Your task to perform on an android device: Open Chrome and go to the settings page Image 0: 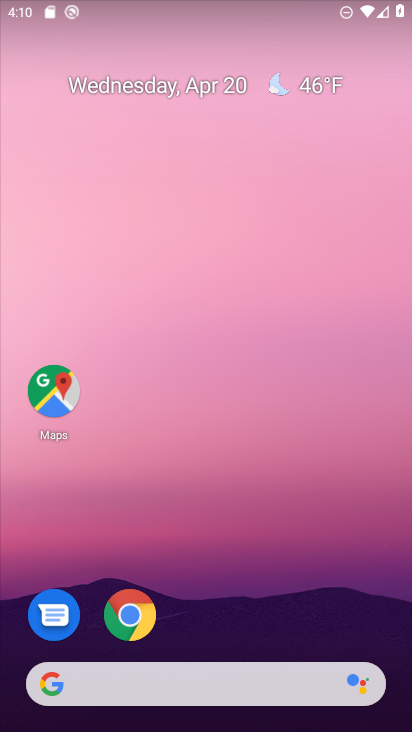
Step 0: drag from (151, 427) to (229, 65)
Your task to perform on an android device: Open Chrome and go to the settings page Image 1: 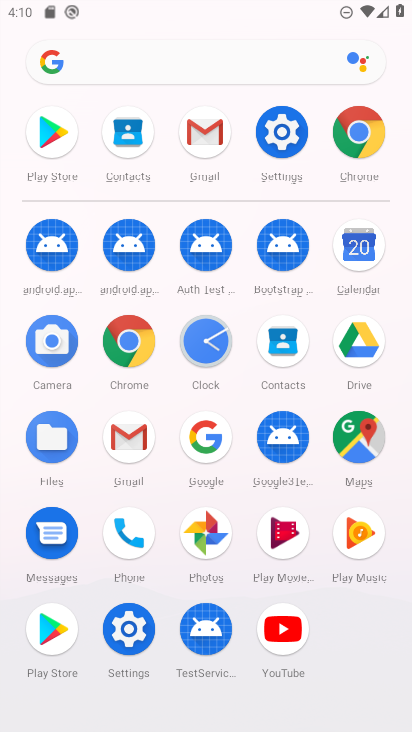
Step 1: click (278, 110)
Your task to perform on an android device: Open Chrome and go to the settings page Image 2: 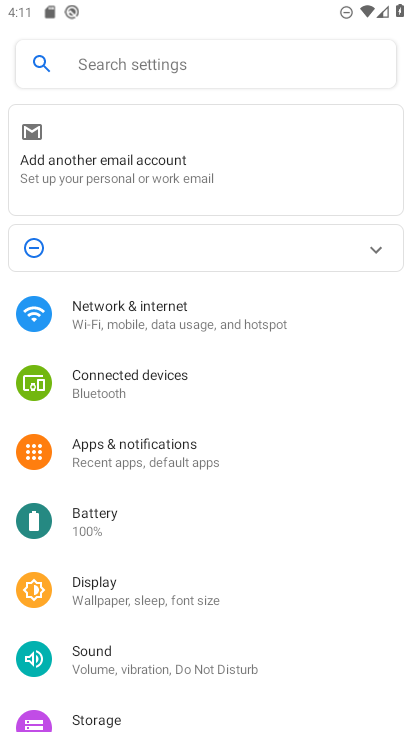
Step 2: press home button
Your task to perform on an android device: Open Chrome and go to the settings page Image 3: 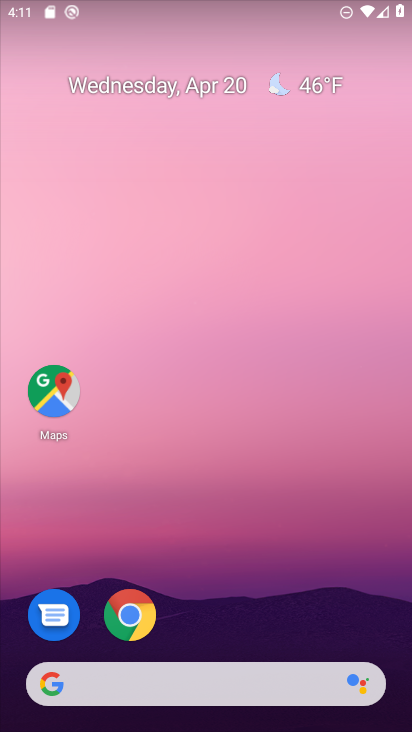
Step 3: drag from (302, 544) to (333, 114)
Your task to perform on an android device: Open Chrome and go to the settings page Image 4: 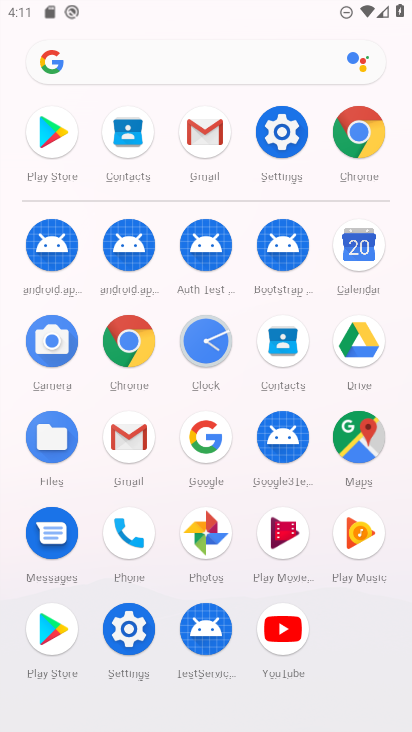
Step 4: click (377, 114)
Your task to perform on an android device: Open Chrome and go to the settings page Image 5: 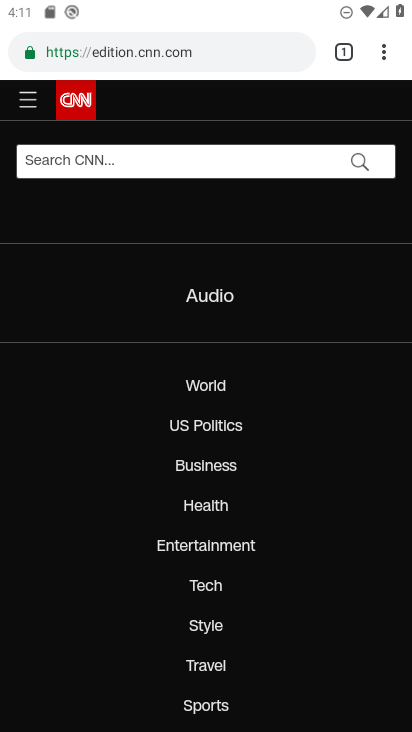
Step 5: task complete